Your task to perform on an android device: What's the weather today? Image 0: 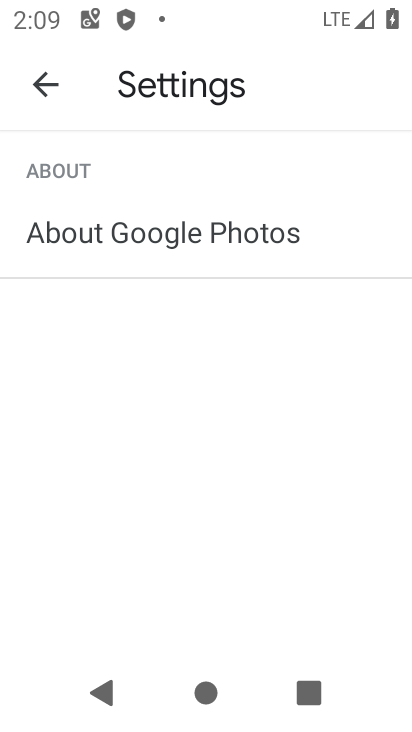
Step 0: press home button
Your task to perform on an android device: What's the weather today? Image 1: 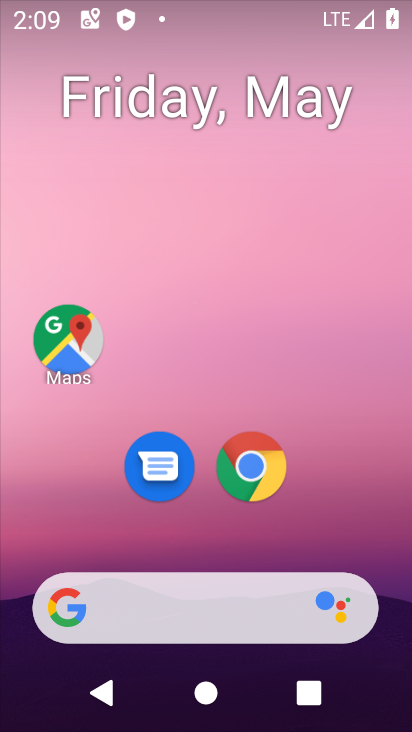
Step 1: drag from (295, 505) to (346, 125)
Your task to perform on an android device: What's the weather today? Image 2: 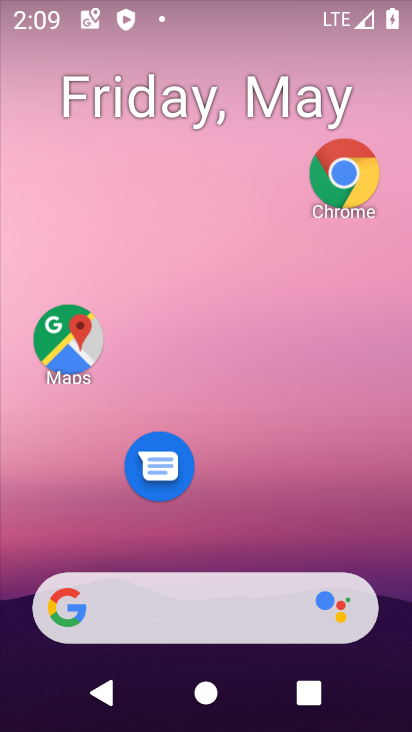
Step 2: click (300, 468)
Your task to perform on an android device: What's the weather today? Image 3: 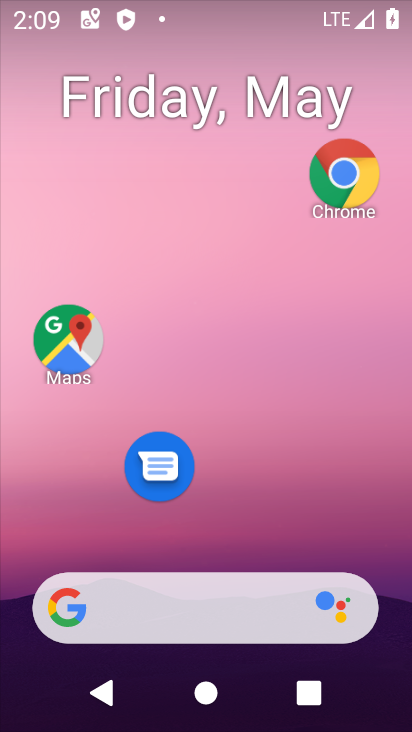
Step 3: drag from (310, 525) to (279, 115)
Your task to perform on an android device: What's the weather today? Image 4: 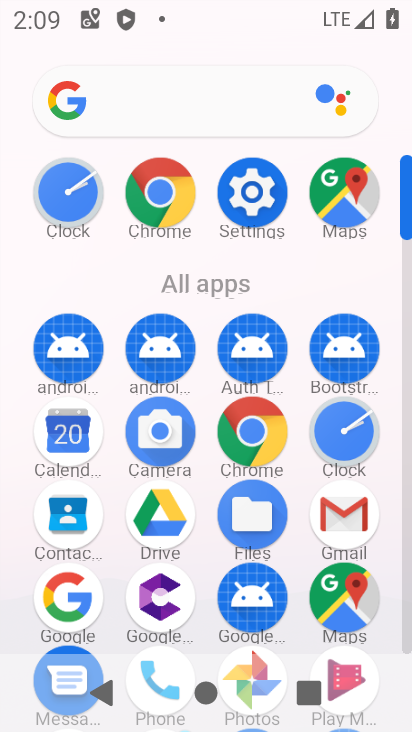
Step 4: click (257, 420)
Your task to perform on an android device: What's the weather today? Image 5: 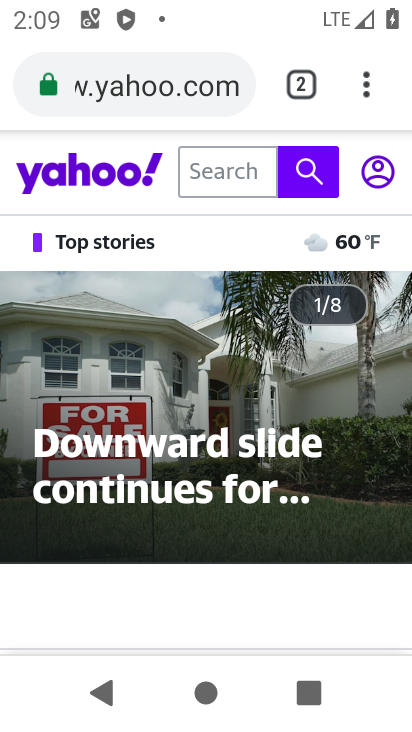
Step 5: click (195, 92)
Your task to perform on an android device: What's the weather today? Image 6: 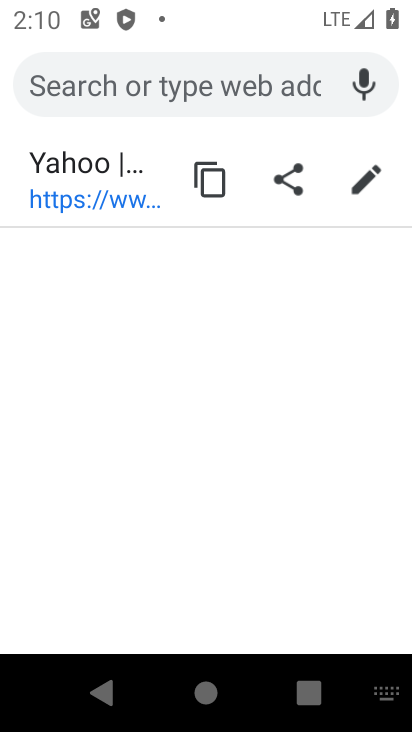
Step 6: type "What's the weather today?"
Your task to perform on an android device: What's the weather today? Image 7: 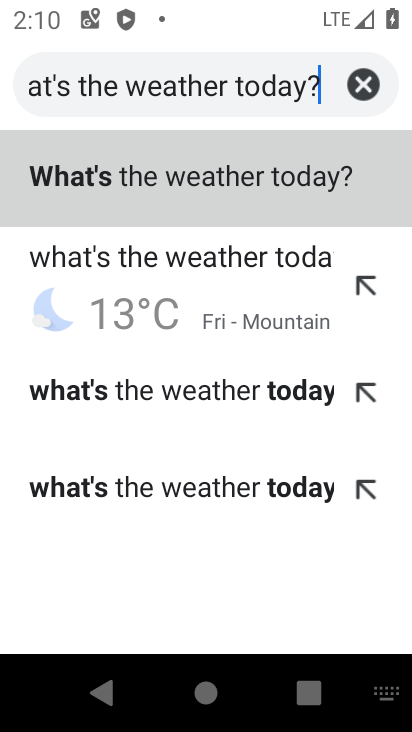
Step 7: click (228, 169)
Your task to perform on an android device: What's the weather today? Image 8: 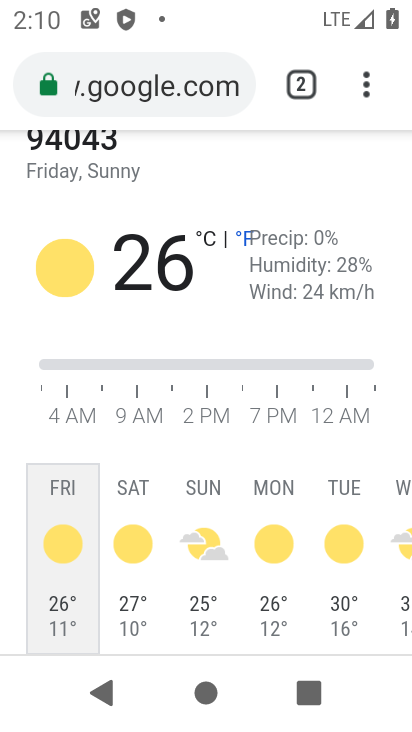
Step 8: task complete